Your task to perform on an android device: set default search engine in the chrome app Image 0: 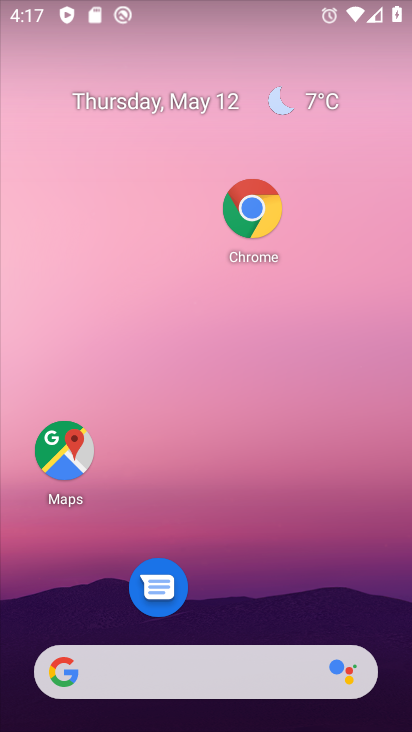
Step 0: click (247, 262)
Your task to perform on an android device: set default search engine in the chrome app Image 1: 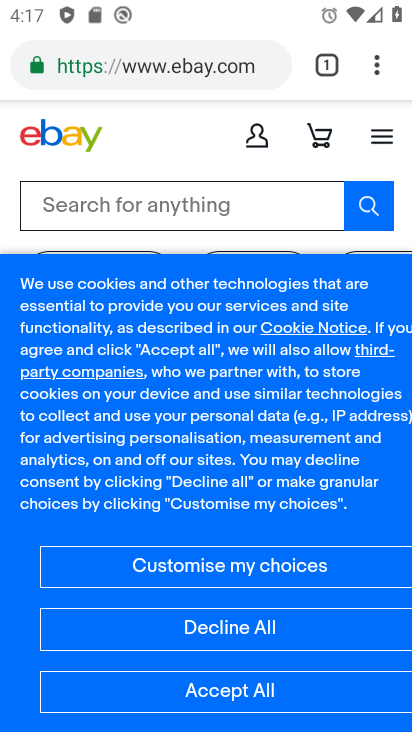
Step 1: click (375, 68)
Your task to perform on an android device: set default search engine in the chrome app Image 2: 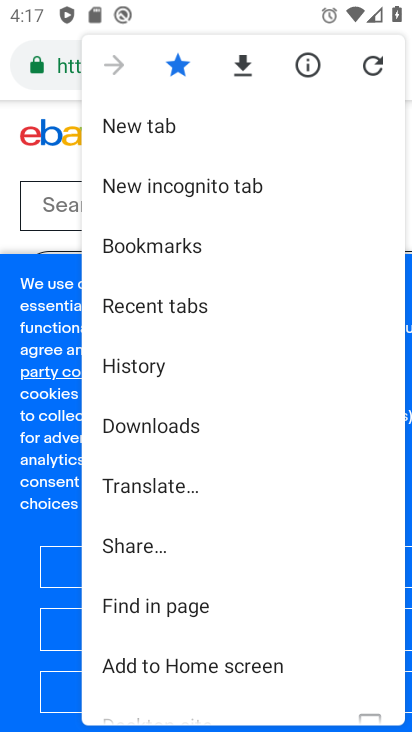
Step 2: drag from (193, 632) to (235, 317)
Your task to perform on an android device: set default search engine in the chrome app Image 3: 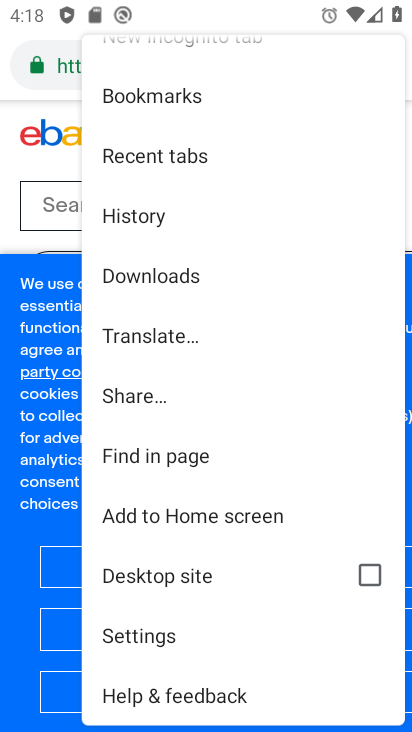
Step 3: drag from (189, 560) to (207, 320)
Your task to perform on an android device: set default search engine in the chrome app Image 4: 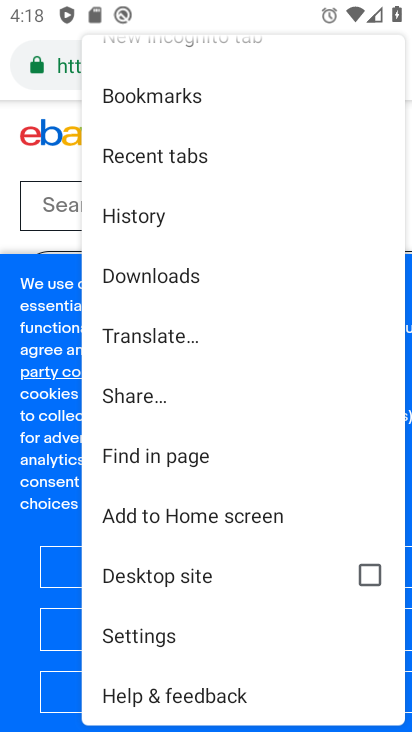
Step 4: click (143, 636)
Your task to perform on an android device: set default search engine in the chrome app Image 5: 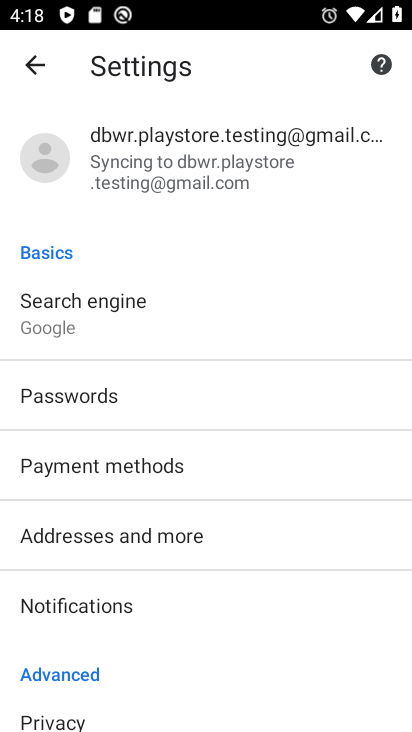
Step 5: drag from (140, 661) to (159, 256)
Your task to perform on an android device: set default search engine in the chrome app Image 6: 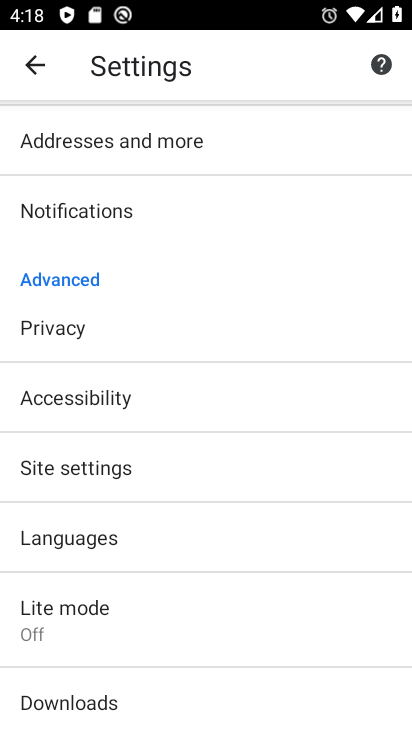
Step 6: click (176, 370)
Your task to perform on an android device: set default search engine in the chrome app Image 7: 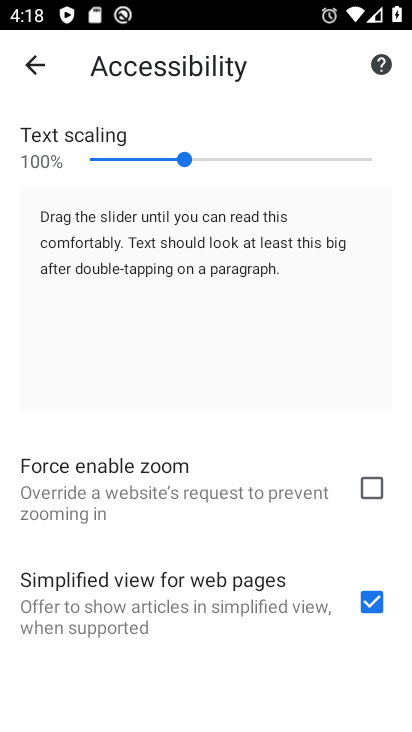
Step 7: press back button
Your task to perform on an android device: set default search engine in the chrome app Image 8: 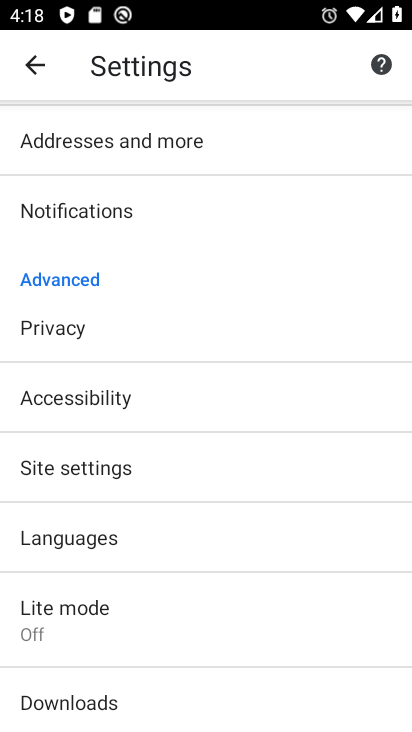
Step 8: drag from (211, 373) to (213, 578)
Your task to perform on an android device: set default search engine in the chrome app Image 9: 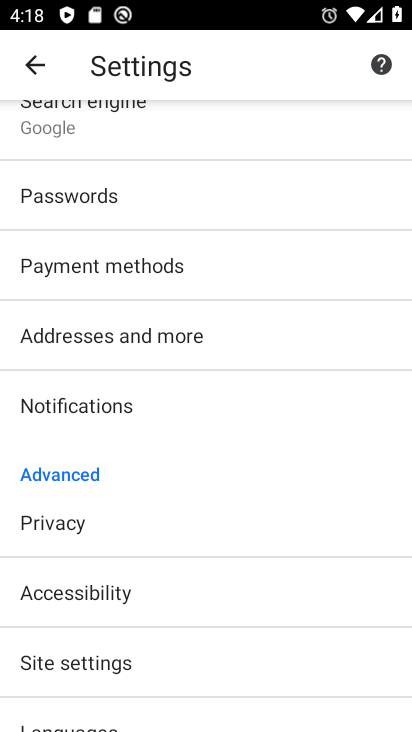
Step 9: drag from (162, 228) to (122, 695)
Your task to perform on an android device: set default search engine in the chrome app Image 10: 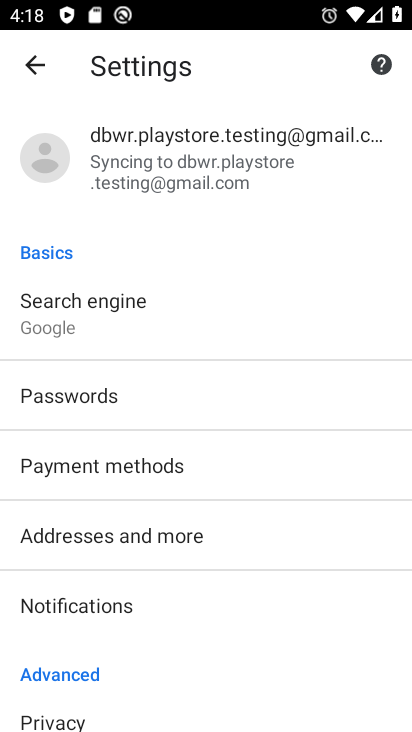
Step 10: click (44, 326)
Your task to perform on an android device: set default search engine in the chrome app Image 11: 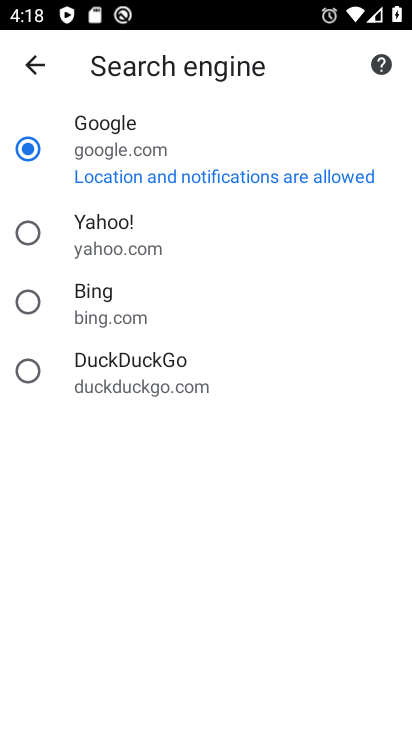
Step 11: click (32, 230)
Your task to perform on an android device: set default search engine in the chrome app Image 12: 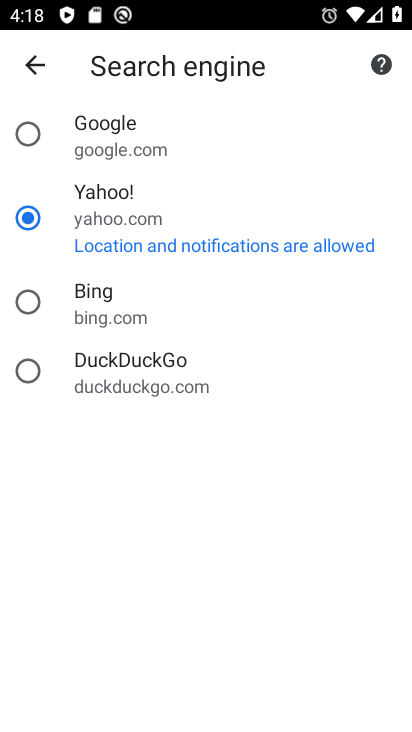
Step 12: task complete